Your task to perform on an android device: create a new album in the google photos Image 0: 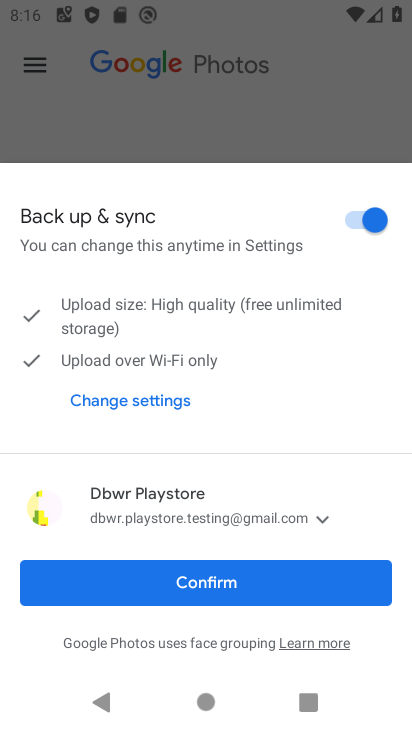
Step 0: press back button
Your task to perform on an android device: create a new album in the google photos Image 1: 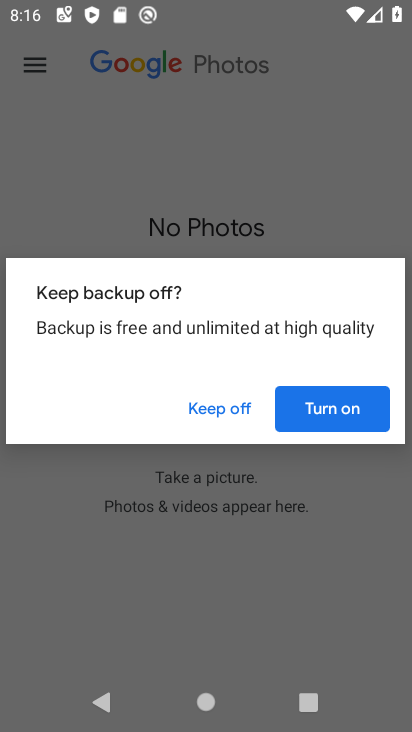
Step 1: click (215, 409)
Your task to perform on an android device: create a new album in the google photos Image 2: 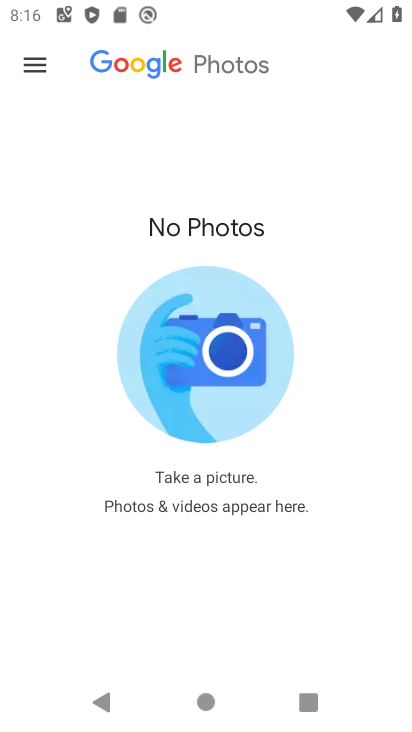
Step 2: press home button
Your task to perform on an android device: create a new album in the google photos Image 3: 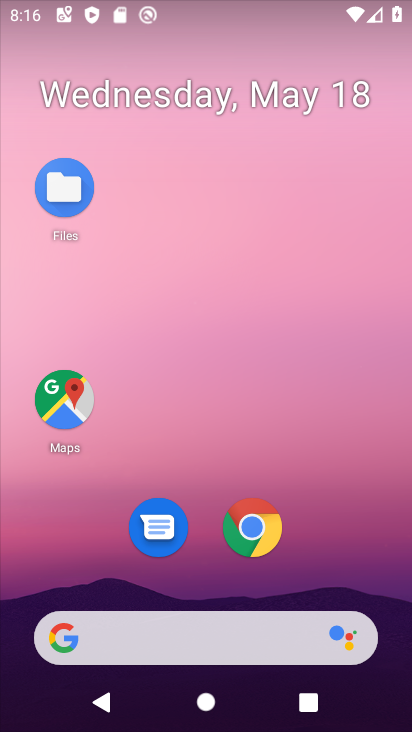
Step 3: drag from (362, 635) to (181, 155)
Your task to perform on an android device: create a new album in the google photos Image 4: 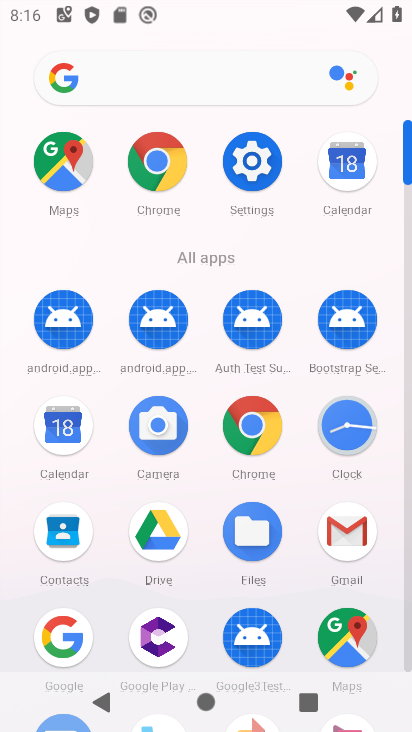
Step 4: drag from (270, 495) to (241, 288)
Your task to perform on an android device: create a new album in the google photos Image 5: 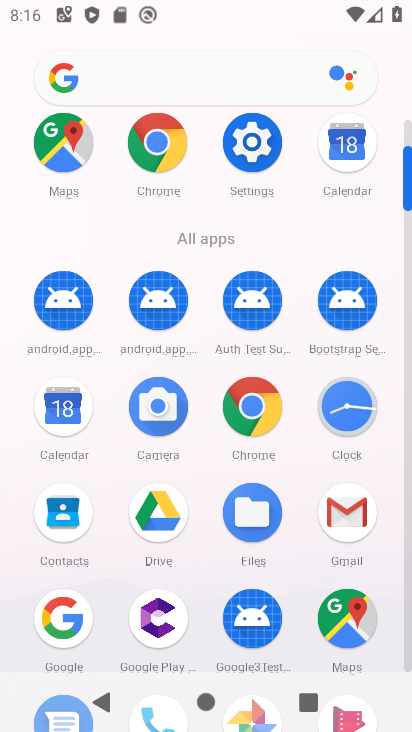
Step 5: drag from (278, 553) to (268, 246)
Your task to perform on an android device: create a new album in the google photos Image 6: 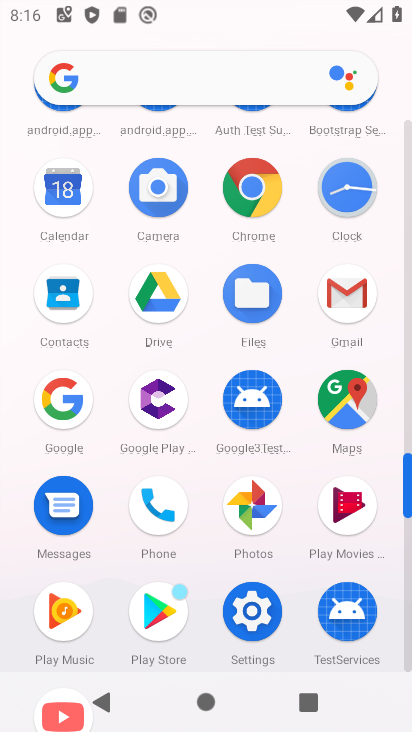
Step 6: click (256, 511)
Your task to perform on an android device: create a new album in the google photos Image 7: 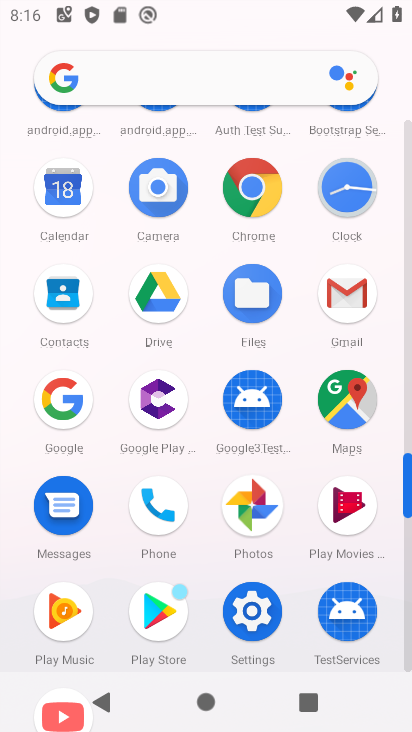
Step 7: click (256, 511)
Your task to perform on an android device: create a new album in the google photos Image 8: 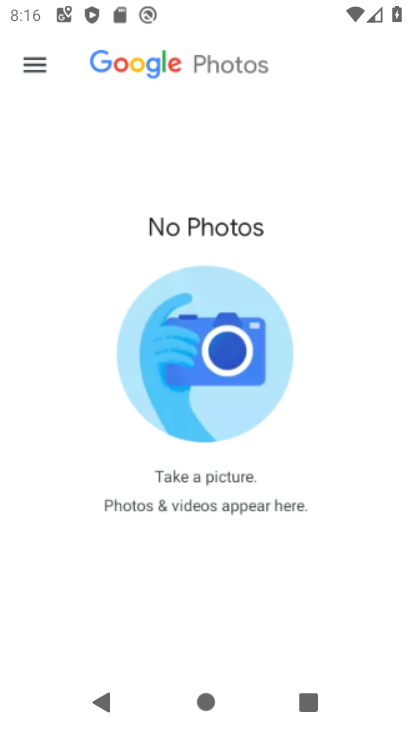
Step 8: click (257, 510)
Your task to perform on an android device: create a new album in the google photos Image 9: 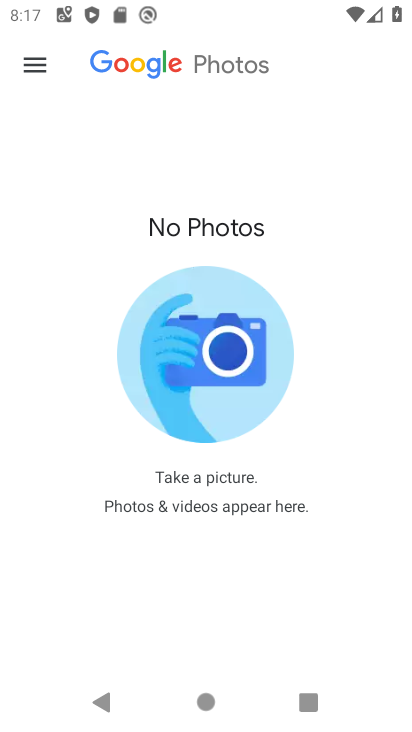
Step 9: click (34, 72)
Your task to perform on an android device: create a new album in the google photos Image 10: 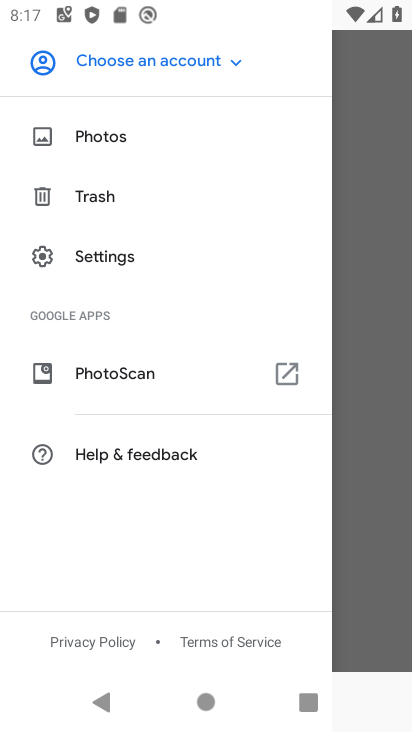
Step 10: click (115, 139)
Your task to perform on an android device: create a new album in the google photos Image 11: 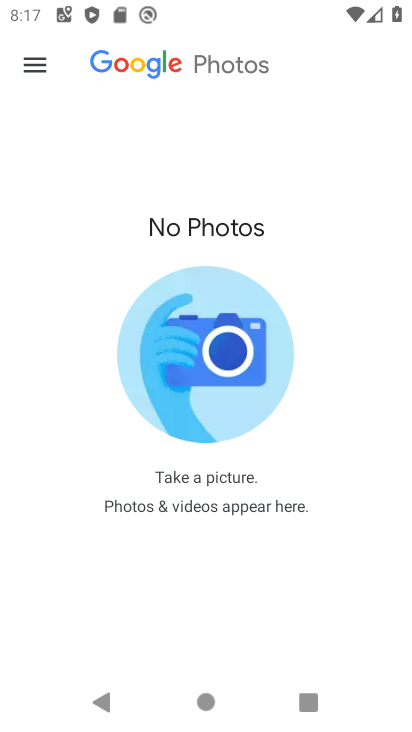
Step 11: task complete